Your task to perform on an android device: turn off improve location accuracy Image 0: 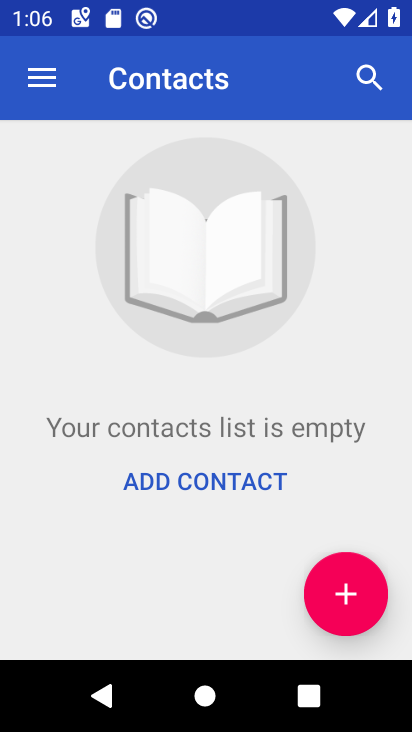
Step 0: press home button
Your task to perform on an android device: turn off improve location accuracy Image 1: 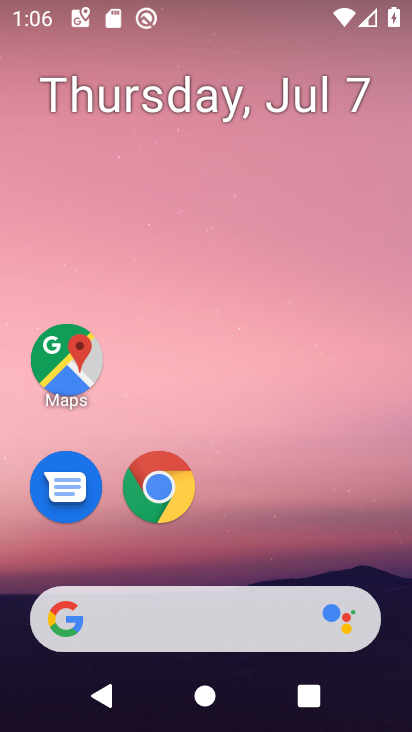
Step 1: drag from (340, 530) to (342, 100)
Your task to perform on an android device: turn off improve location accuracy Image 2: 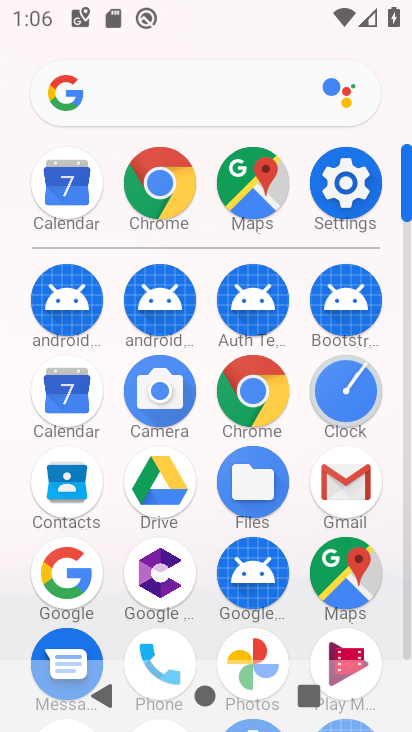
Step 2: click (342, 185)
Your task to perform on an android device: turn off improve location accuracy Image 3: 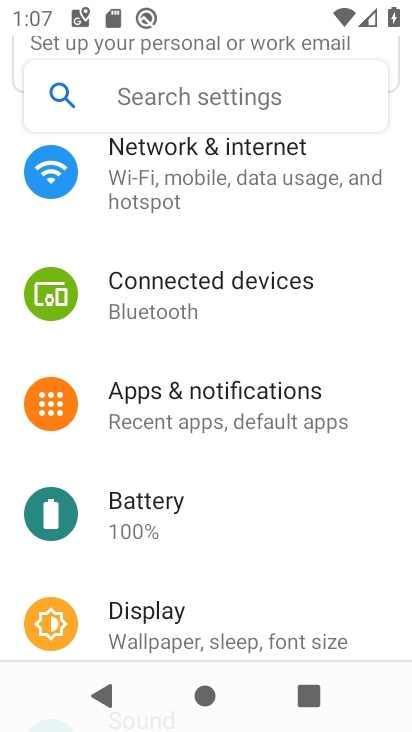
Step 3: drag from (370, 556) to (377, 403)
Your task to perform on an android device: turn off improve location accuracy Image 4: 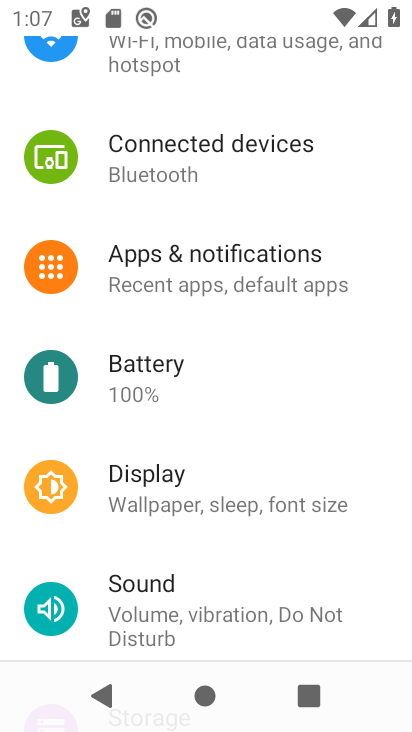
Step 4: drag from (357, 556) to (354, 396)
Your task to perform on an android device: turn off improve location accuracy Image 5: 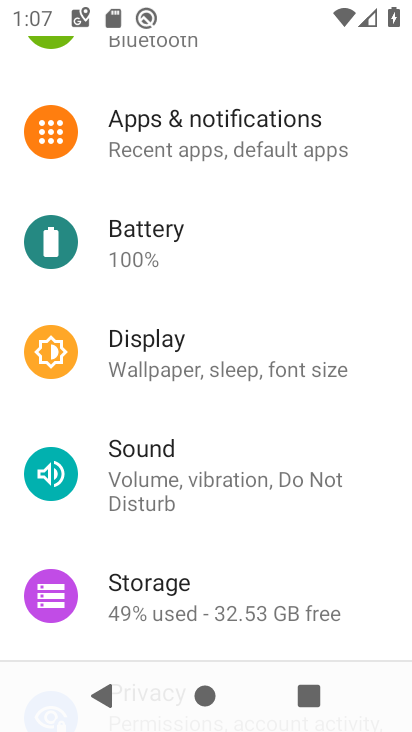
Step 5: drag from (366, 580) to (360, 415)
Your task to perform on an android device: turn off improve location accuracy Image 6: 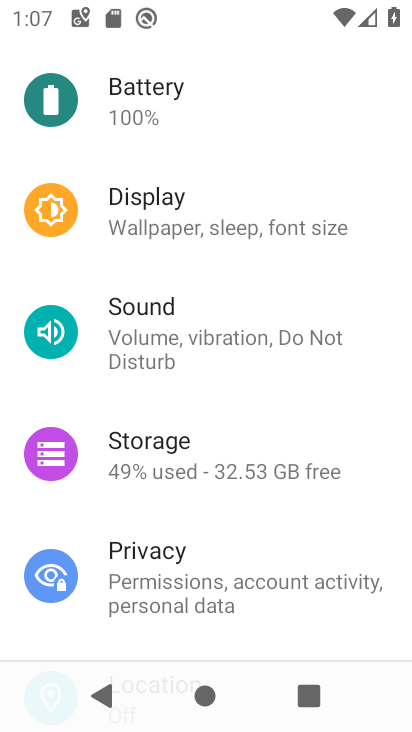
Step 6: drag from (355, 614) to (359, 453)
Your task to perform on an android device: turn off improve location accuracy Image 7: 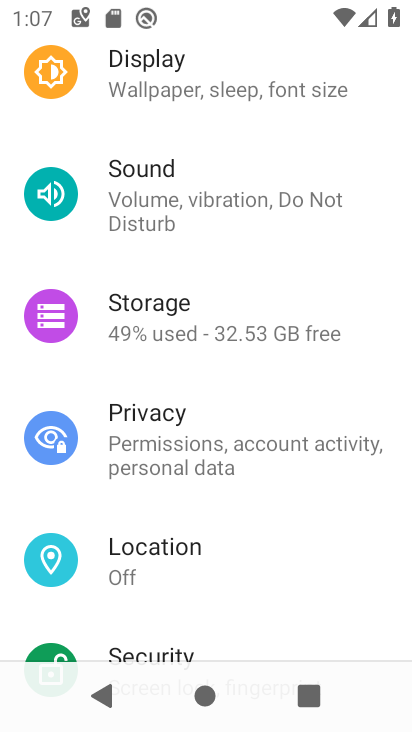
Step 7: drag from (355, 604) to (354, 418)
Your task to perform on an android device: turn off improve location accuracy Image 8: 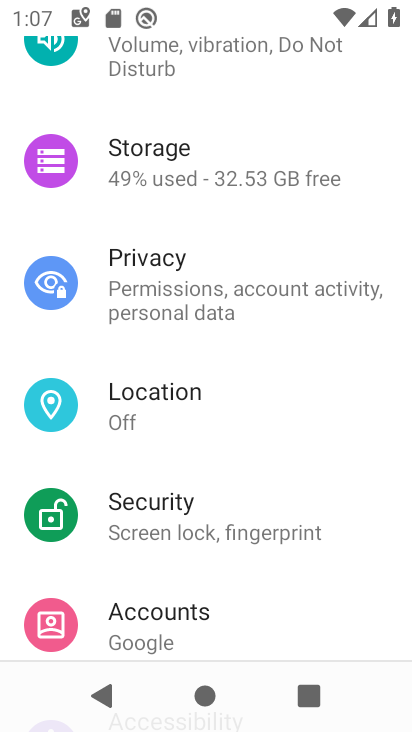
Step 8: click (151, 423)
Your task to perform on an android device: turn off improve location accuracy Image 9: 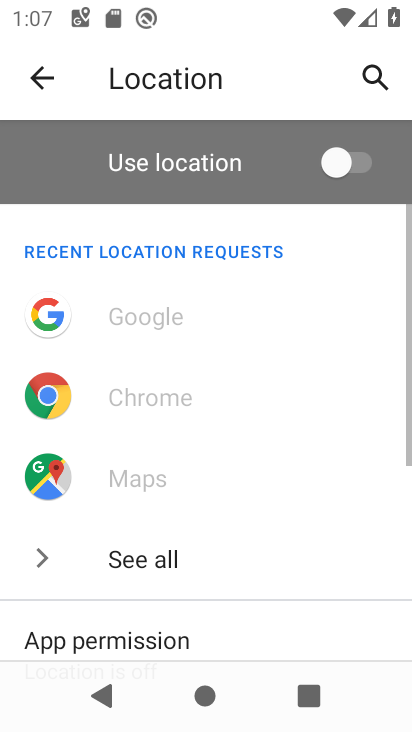
Step 9: drag from (321, 565) to (307, 317)
Your task to perform on an android device: turn off improve location accuracy Image 10: 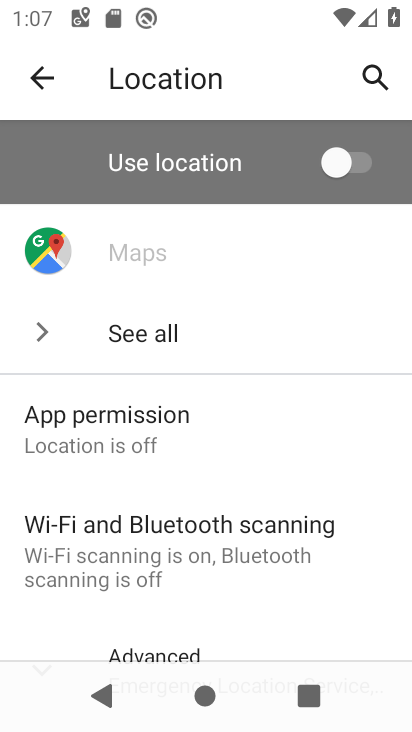
Step 10: drag from (288, 582) to (286, 381)
Your task to perform on an android device: turn off improve location accuracy Image 11: 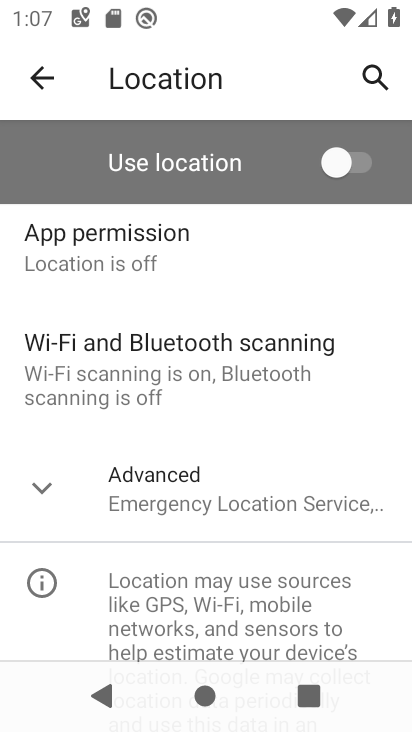
Step 11: click (240, 493)
Your task to perform on an android device: turn off improve location accuracy Image 12: 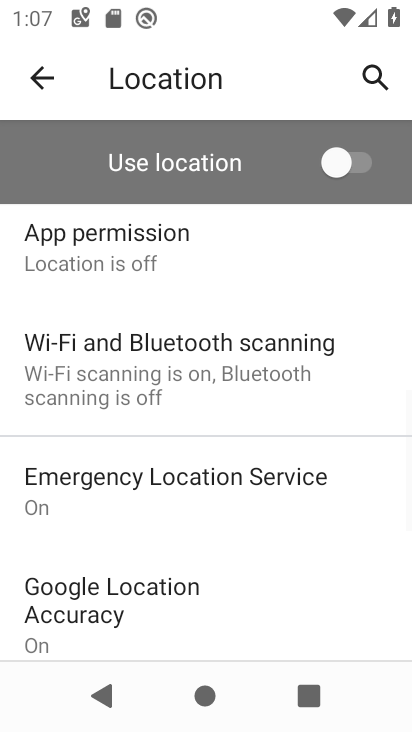
Step 12: drag from (346, 577) to (353, 423)
Your task to perform on an android device: turn off improve location accuracy Image 13: 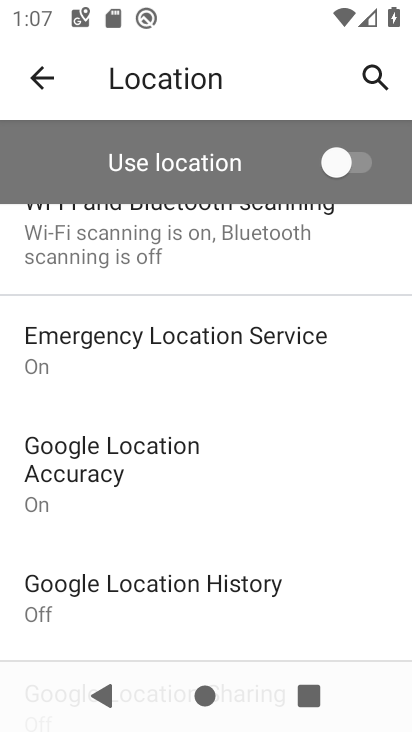
Step 13: drag from (340, 572) to (346, 431)
Your task to perform on an android device: turn off improve location accuracy Image 14: 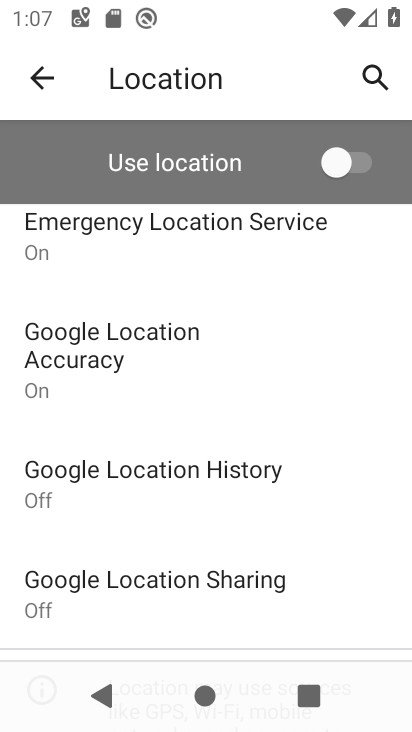
Step 14: click (119, 358)
Your task to perform on an android device: turn off improve location accuracy Image 15: 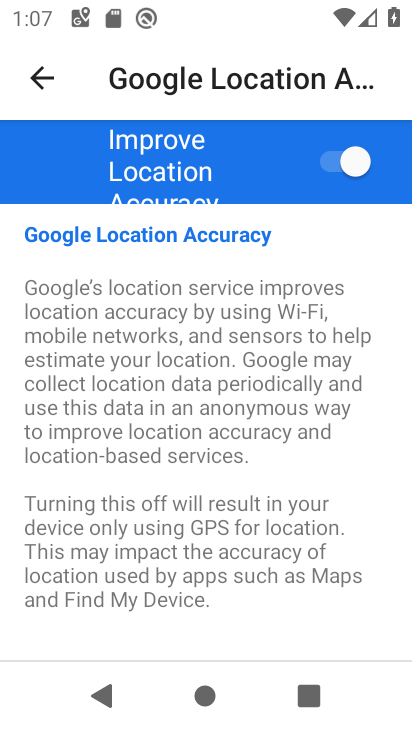
Step 15: click (353, 175)
Your task to perform on an android device: turn off improve location accuracy Image 16: 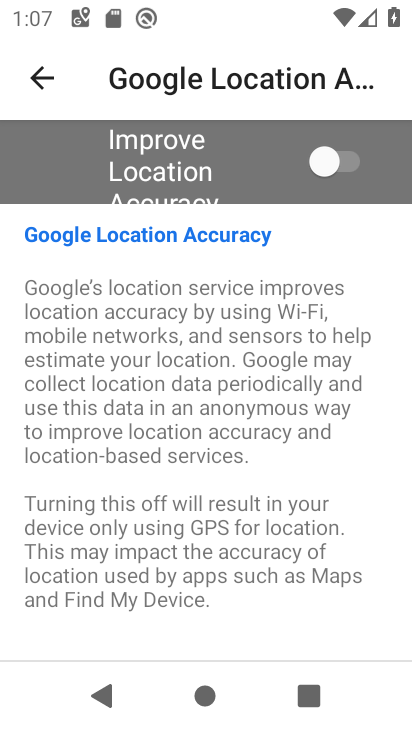
Step 16: task complete